Your task to perform on an android device: When is my next appointment? Image 0: 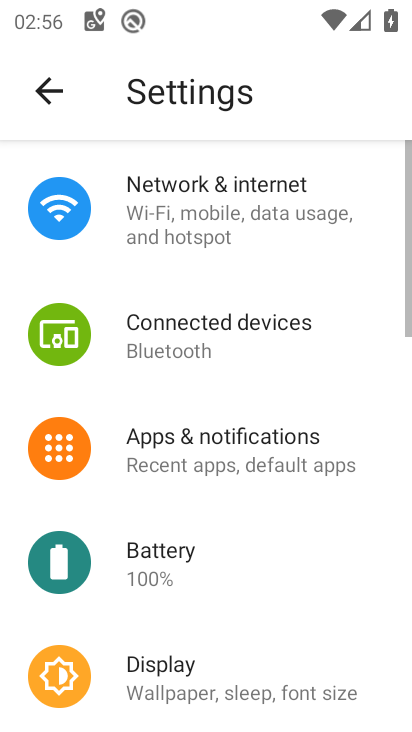
Step 0: press home button
Your task to perform on an android device: When is my next appointment? Image 1: 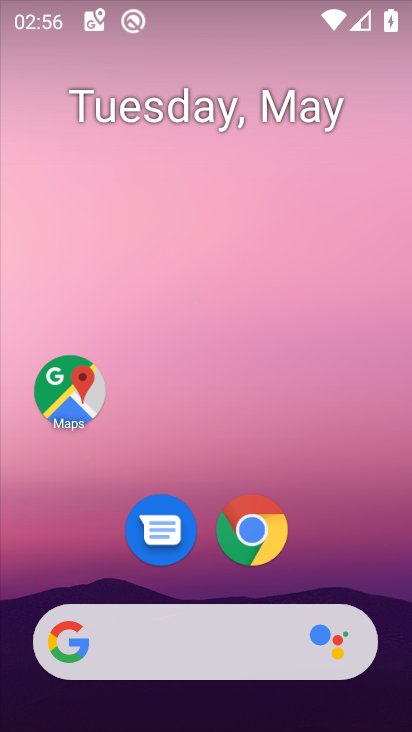
Step 1: drag from (87, 594) to (325, 207)
Your task to perform on an android device: When is my next appointment? Image 2: 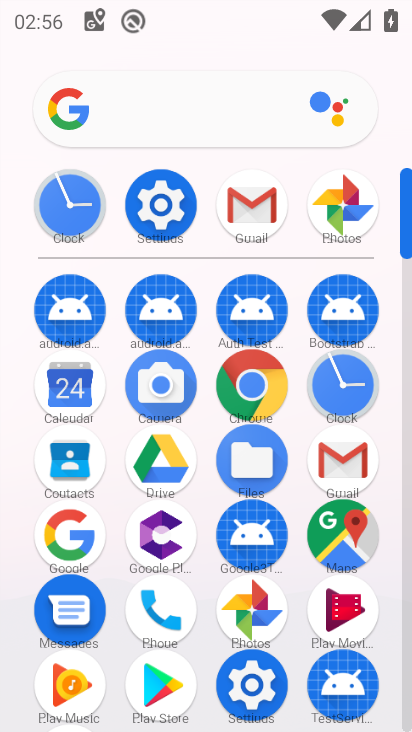
Step 2: click (94, 391)
Your task to perform on an android device: When is my next appointment? Image 3: 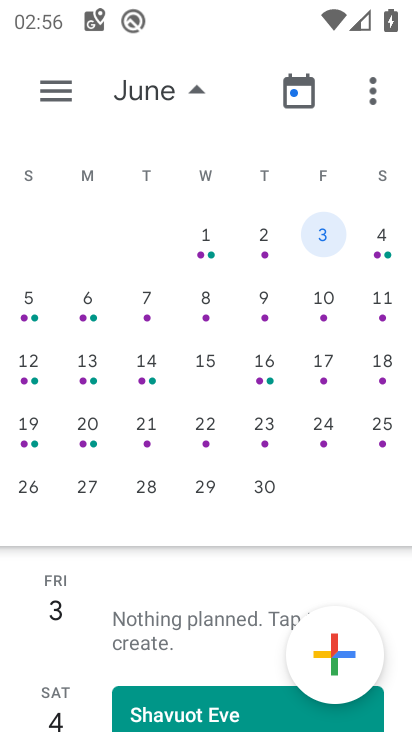
Step 3: click (51, 89)
Your task to perform on an android device: When is my next appointment? Image 4: 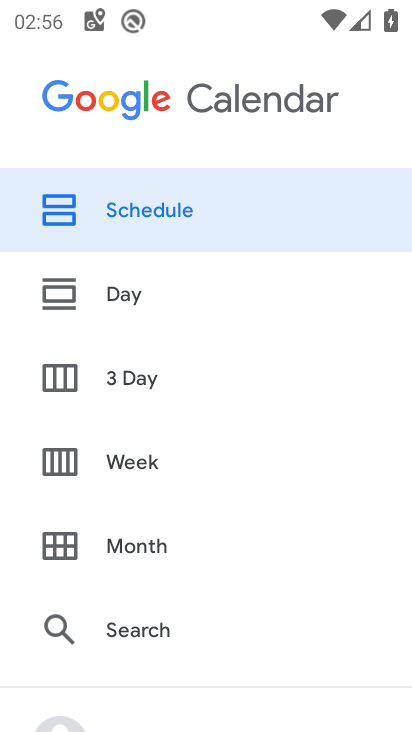
Step 4: press back button
Your task to perform on an android device: When is my next appointment? Image 5: 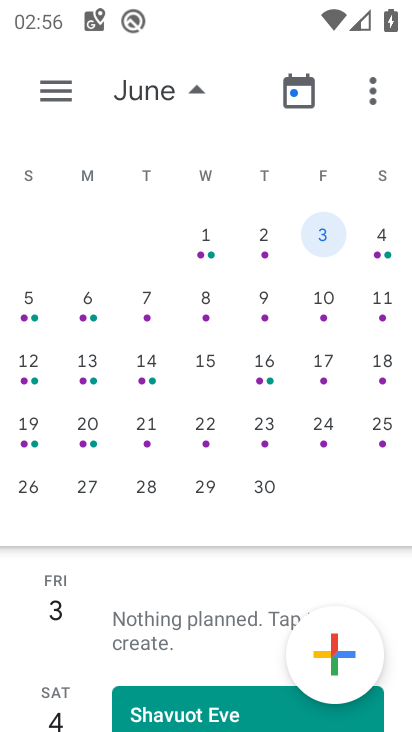
Step 5: click (214, 372)
Your task to perform on an android device: When is my next appointment? Image 6: 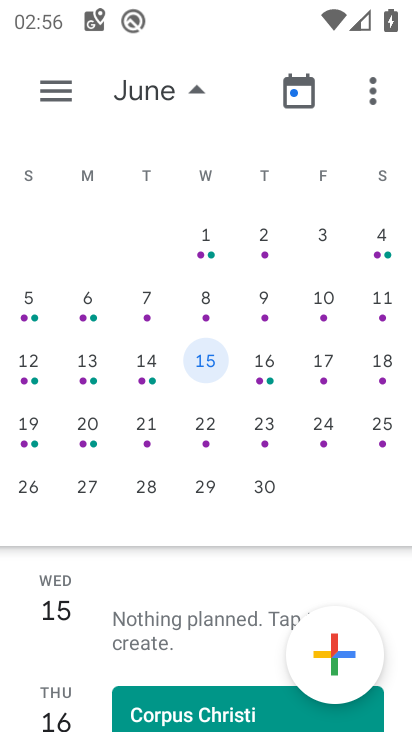
Step 6: task complete